Your task to perform on an android device: open device folders in google photos Image 0: 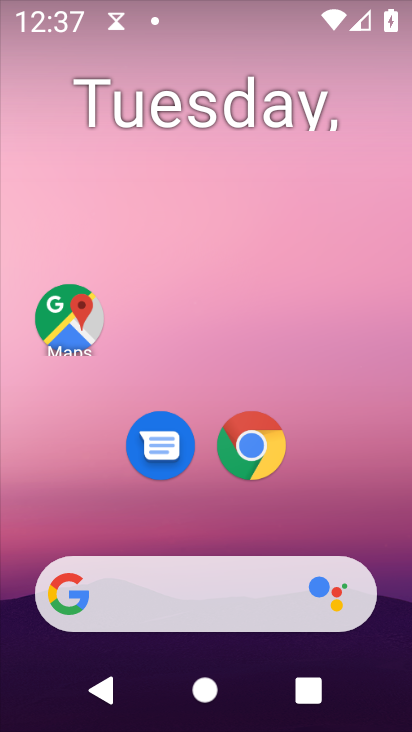
Step 0: drag from (218, 569) to (312, 17)
Your task to perform on an android device: open device folders in google photos Image 1: 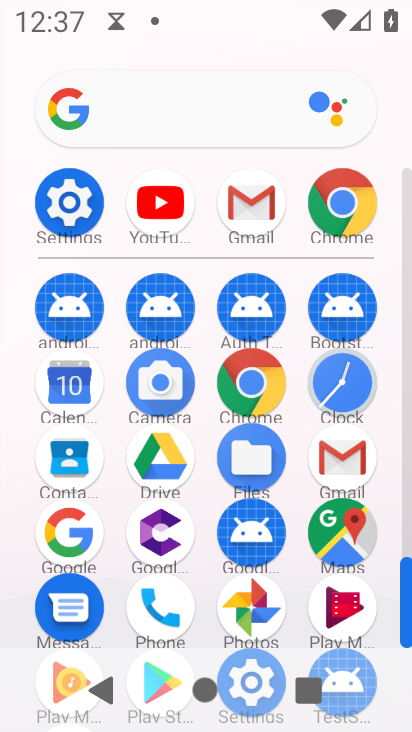
Step 1: click (244, 620)
Your task to perform on an android device: open device folders in google photos Image 2: 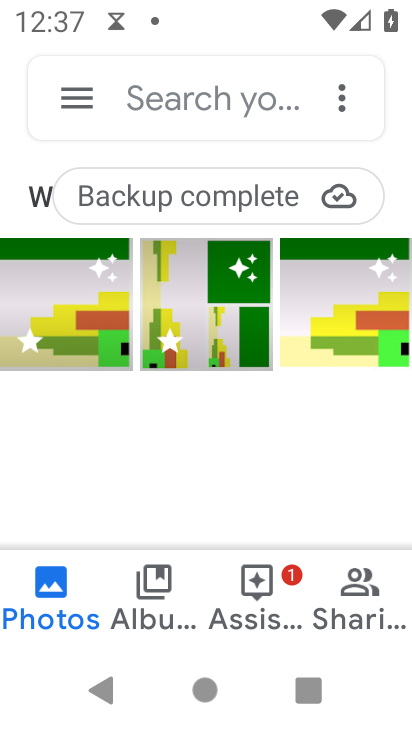
Step 2: click (344, 102)
Your task to perform on an android device: open device folders in google photos Image 3: 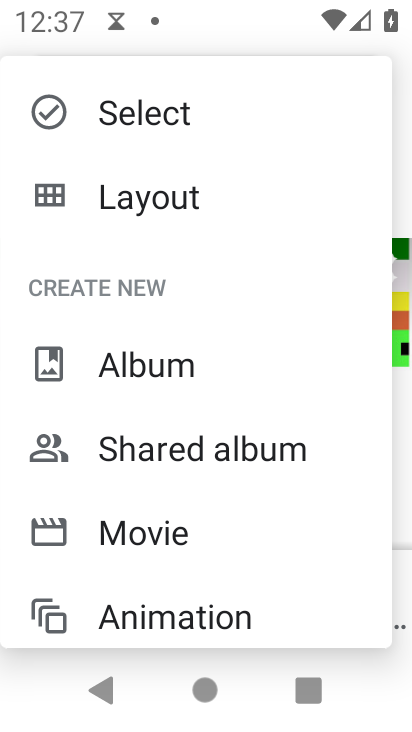
Step 3: click (406, 427)
Your task to perform on an android device: open device folders in google photos Image 4: 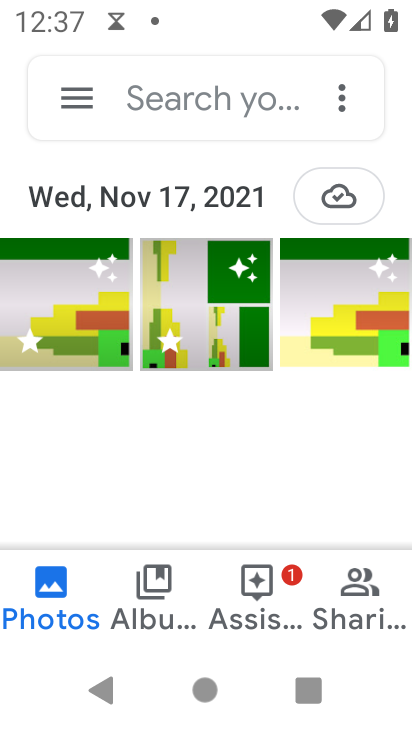
Step 4: click (73, 88)
Your task to perform on an android device: open device folders in google photos Image 5: 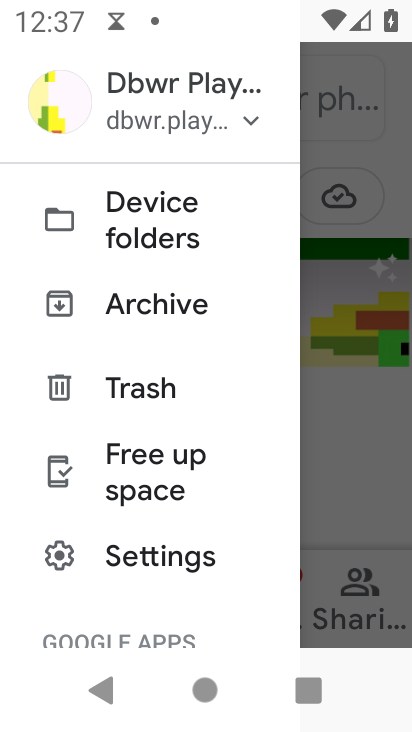
Step 5: click (121, 231)
Your task to perform on an android device: open device folders in google photos Image 6: 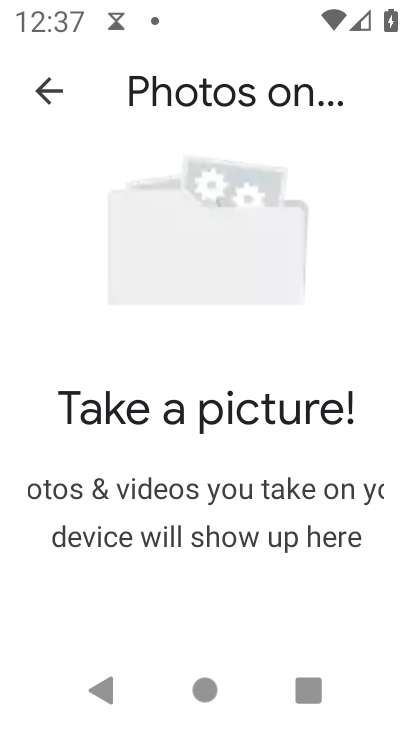
Step 6: task complete